Your task to perform on an android device: Go to battery settings Image 0: 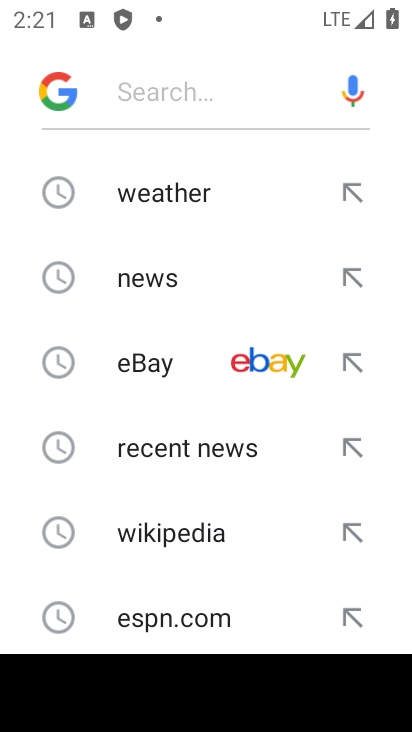
Step 0: press home button
Your task to perform on an android device: Go to battery settings Image 1: 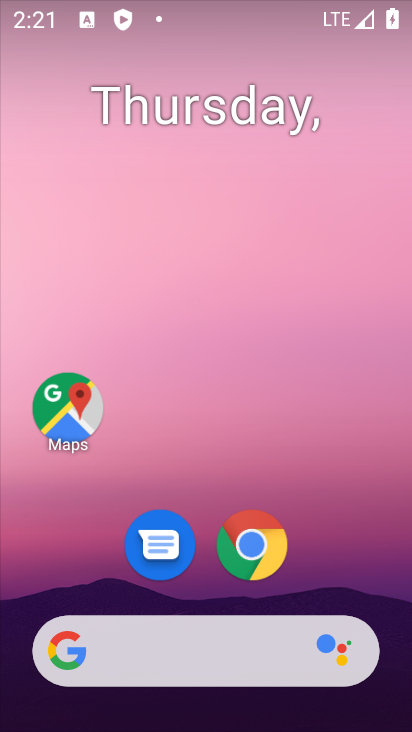
Step 1: drag from (201, 603) to (183, 32)
Your task to perform on an android device: Go to battery settings Image 2: 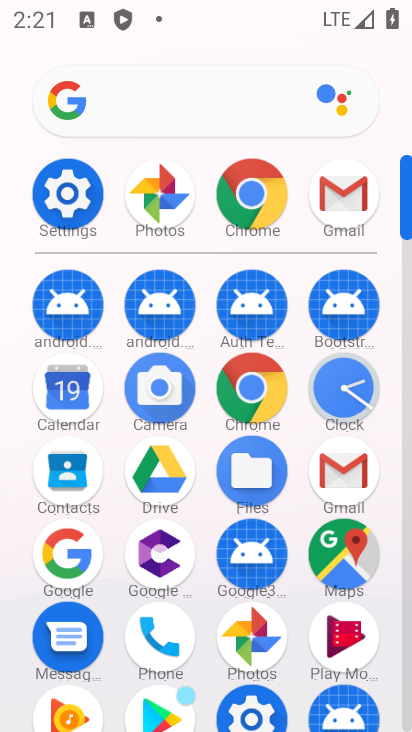
Step 2: click (39, 203)
Your task to perform on an android device: Go to battery settings Image 3: 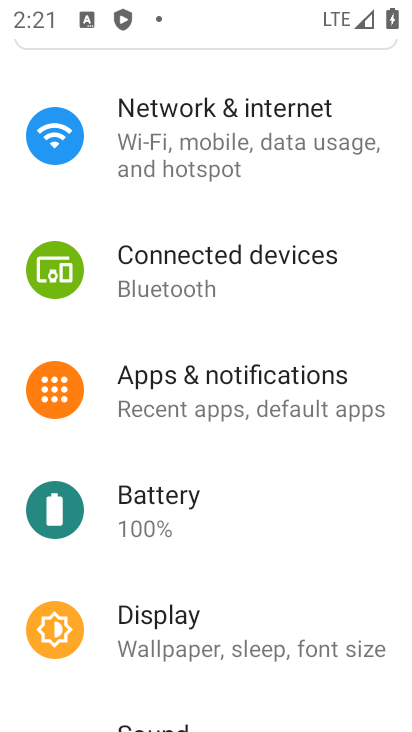
Step 3: click (168, 511)
Your task to perform on an android device: Go to battery settings Image 4: 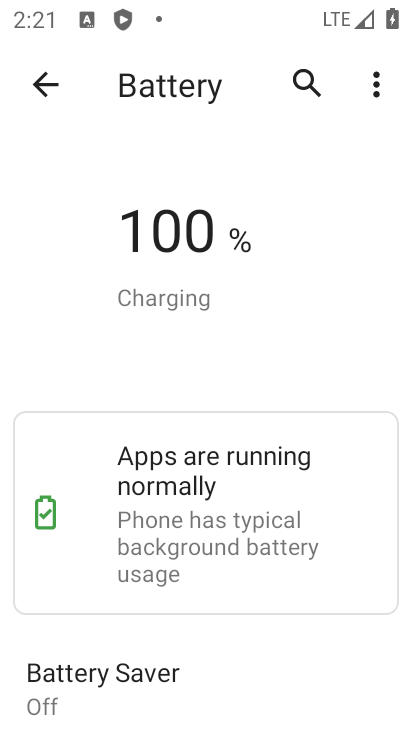
Step 4: task complete